Your task to perform on an android device: Go to location settings Image 0: 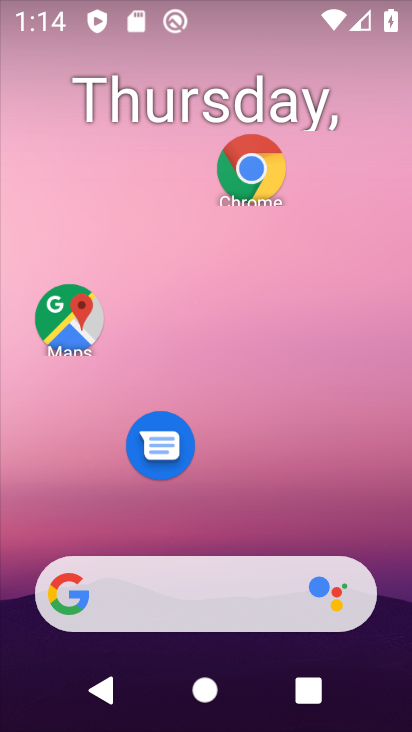
Step 0: drag from (242, 639) to (350, 95)
Your task to perform on an android device: Go to location settings Image 1: 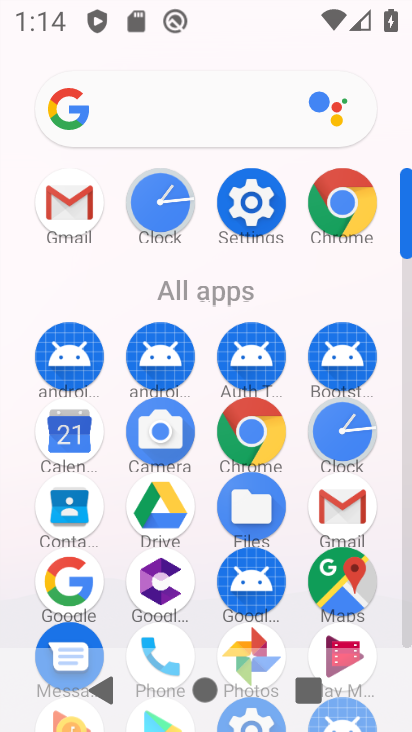
Step 1: click (240, 217)
Your task to perform on an android device: Go to location settings Image 2: 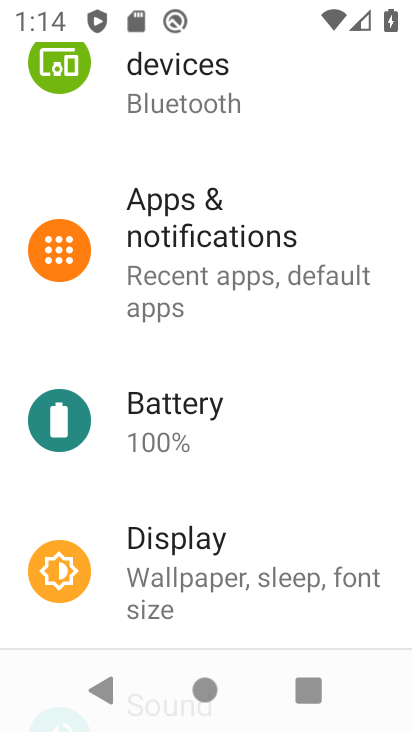
Step 2: drag from (241, 197) to (227, 561)
Your task to perform on an android device: Go to location settings Image 3: 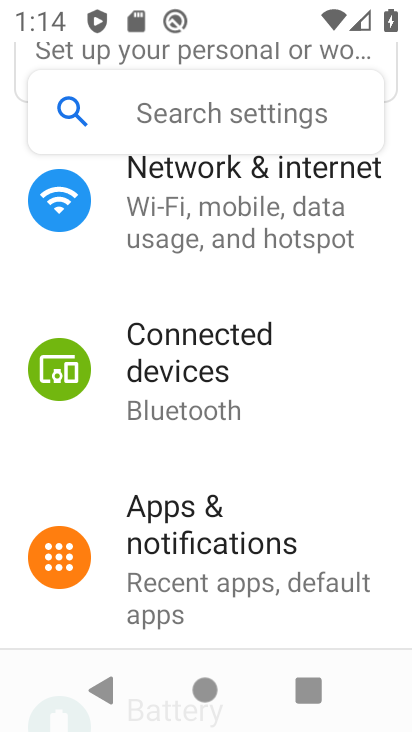
Step 3: click (217, 126)
Your task to perform on an android device: Go to location settings Image 4: 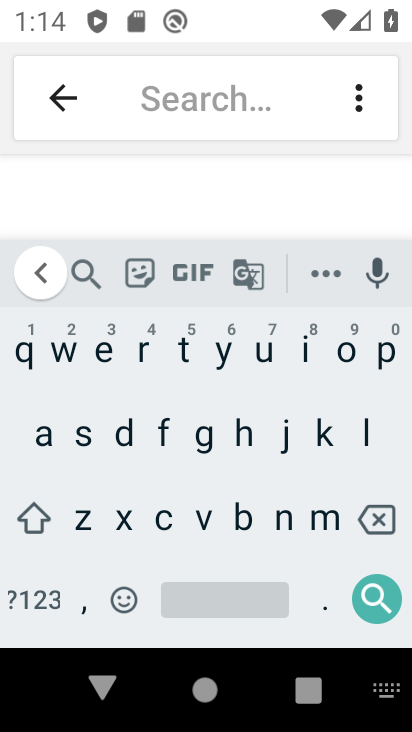
Step 4: click (363, 425)
Your task to perform on an android device: Go to location settings Image 5: 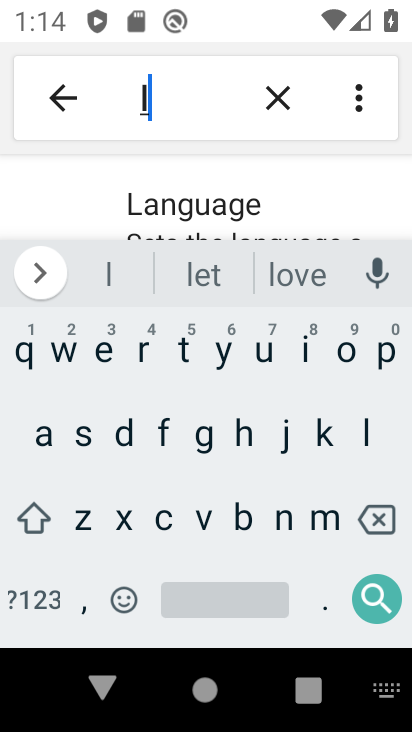
Step 5: click (333, 354)
Your task to perform on an android device: Go to location settings Image 6: 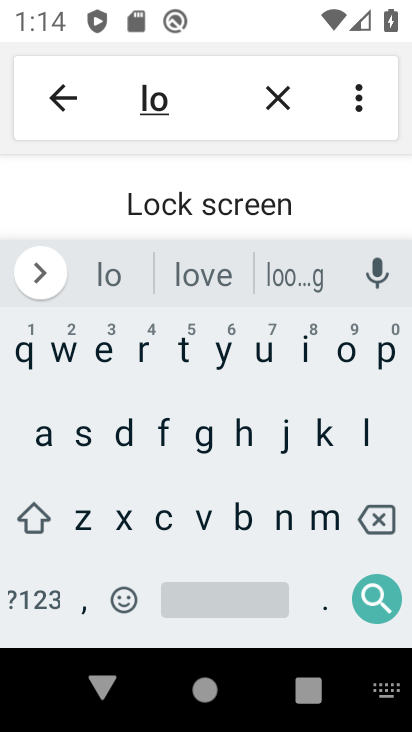
Step 6: click (157, 515)
Your task to perform on an android device: Go to location settings Image 7: 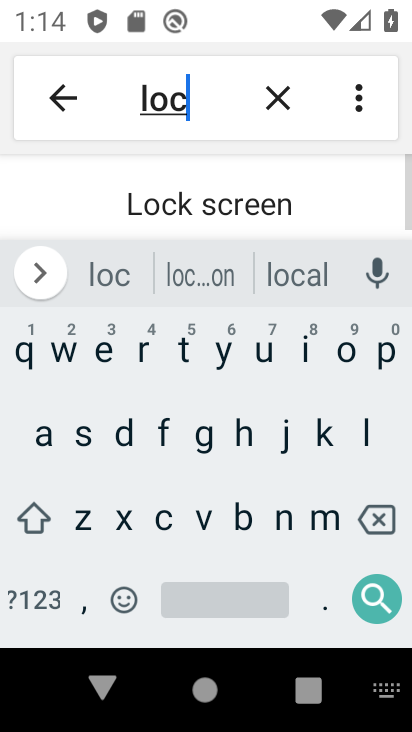
Step 7: click (46, 442)
Your task to perform on an android device: Go to location settings Image 8: 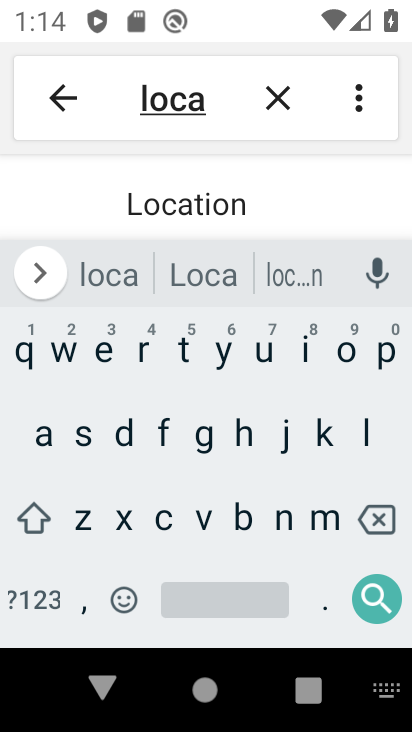
Step 8: click (178, 211)
Your task to perform on an android device: Go to location settings Image 9: 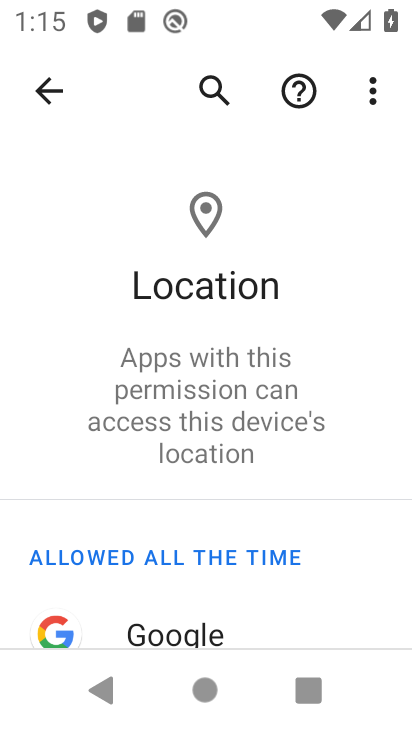
Step 9: task complete